Your task to perform on an android device: Open Google Maps Image 0: 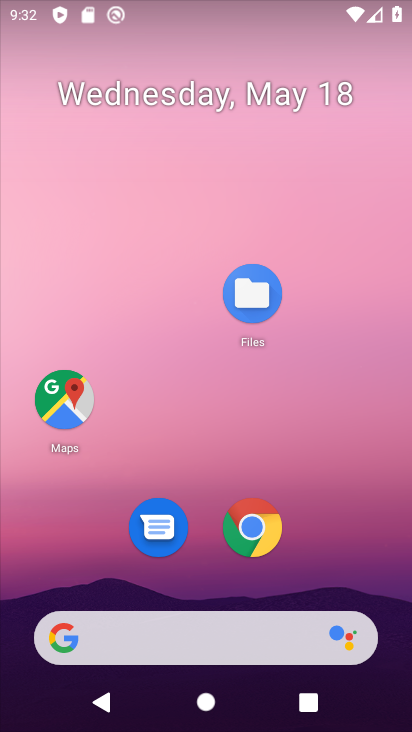
Step 0: click (78, 406)
Your task to perform on an android device: Open Google Maps Image 1: 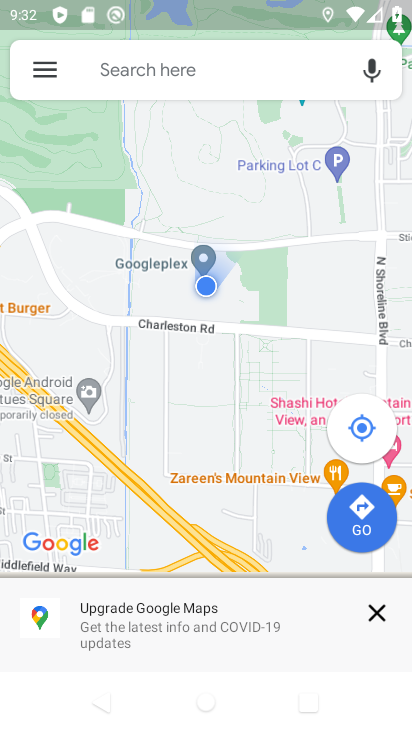
Step 1: task complete